Your task to perform on an android device: snooze an email in the gmail app Image 0: 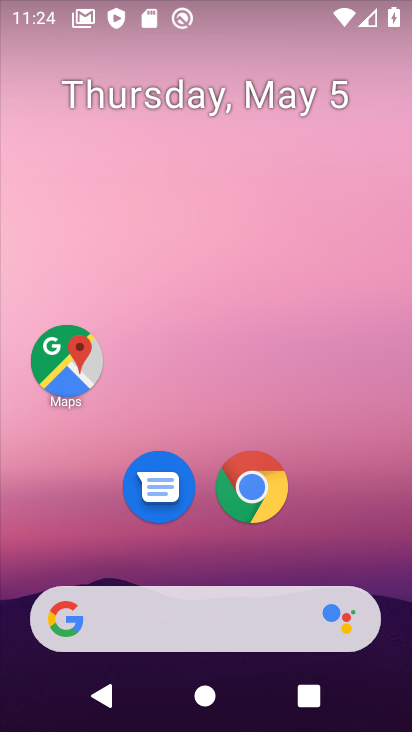
Step 0: drag from (332, 544) to (336, 109)
Your task to perform on an android device: snooze an email in the gmail app Image 1: 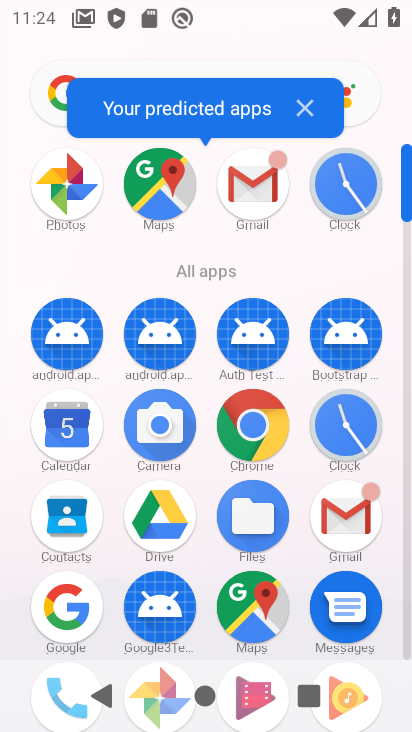
Step 1: click (335, 501)
Your task to perform on an android device: snooze an email in the gmail app Image 2: 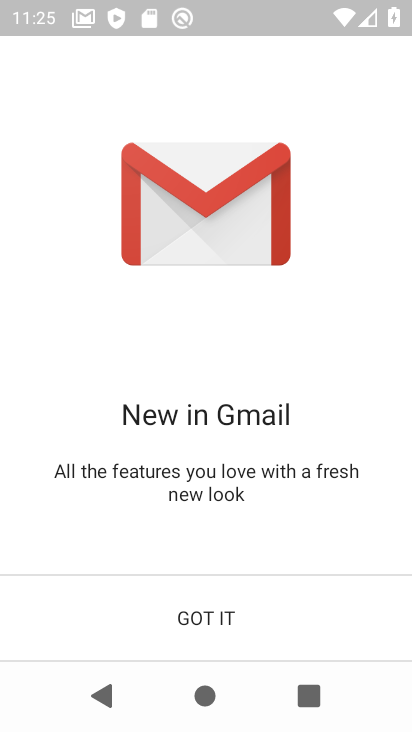
Step 2: click (260, 614)
Your task to perform on an android device: snooze an email in the gmail app Image 3: 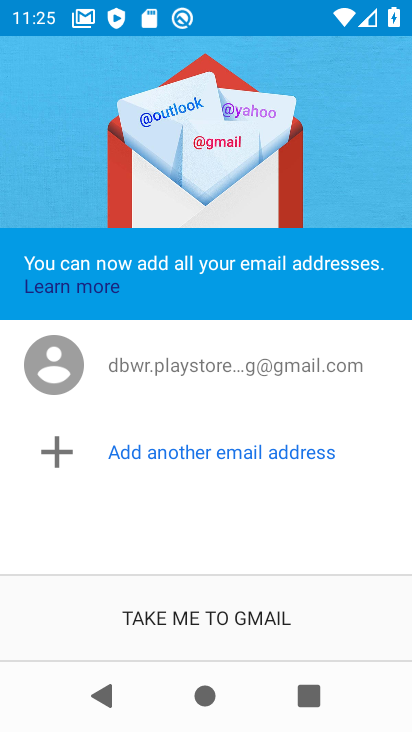
Step 3: click (260, 614)
Your task to perform on an android device: snooze an email in the gmail app Image 4: 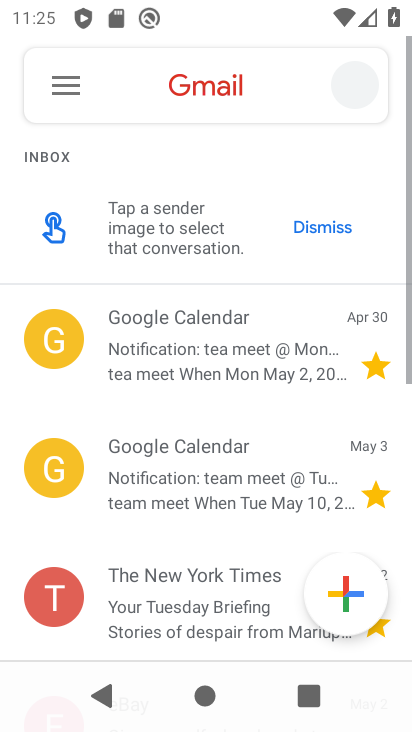
Step 4: click (62, 72)
Your task to perform on an android device: snooze an email in the gmail app Image 5: 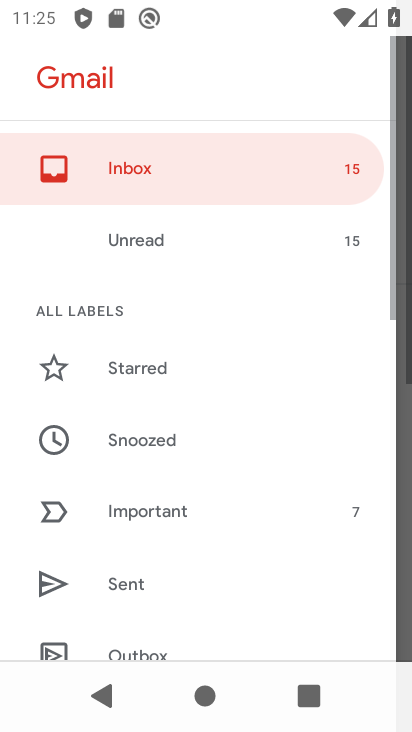
Step 5: drag from (105, 566) to (122, 503)
Your task to perform on an android device: snooze an email in the gmail app Image 6: 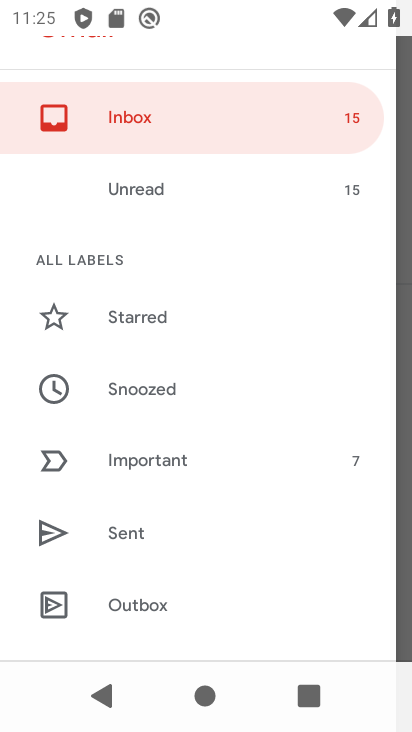
Step 6: click (176, 139)
Your task to perform on an android device: snooze an email in the gmail app Image 7: 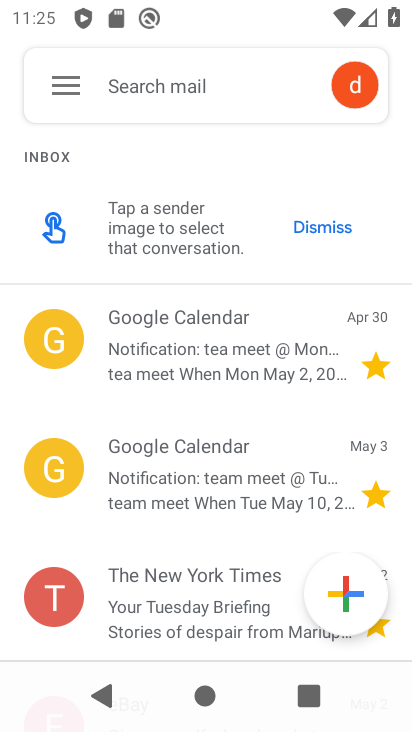
Step 7: click (181, 337)
Your task to perform on an android device: snooze an email in the gmail app Image 8: 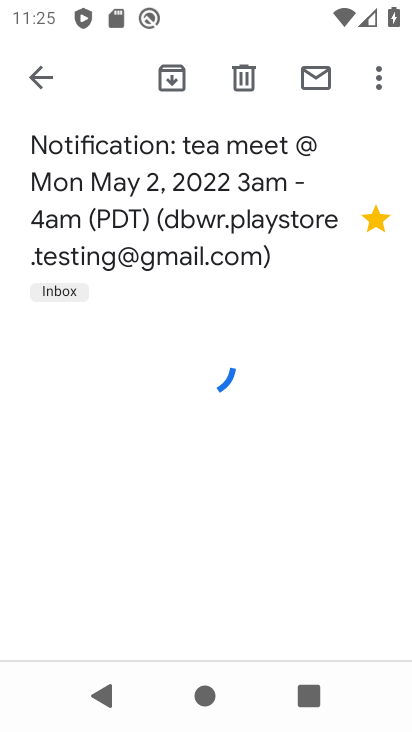
Step 8: click (381, 77)
Your task to perform on an android device: snooze an email in the gmail app Image 9: 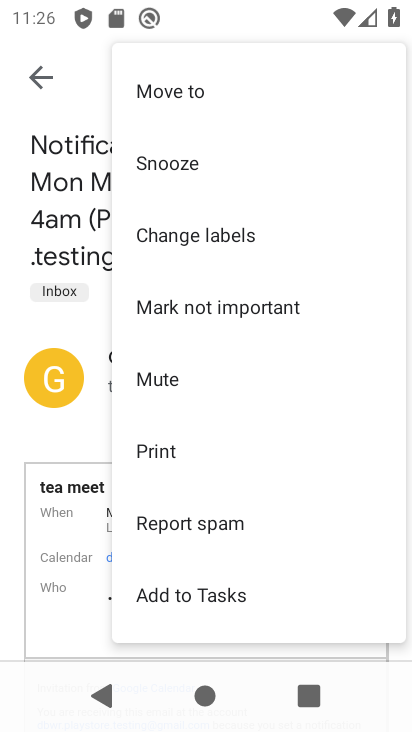
Step 9: click (250, 183)
Your task to perform on an android device: snooze an email in the gmail app Image 10: 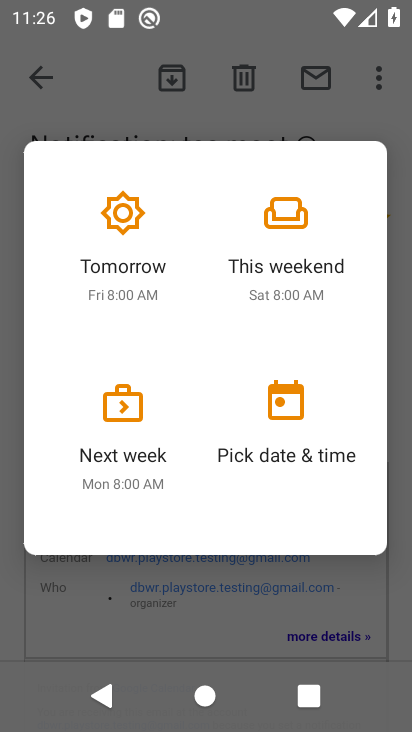
Step 10: click (99, 251)
Your task to perform on an android device: snooze an email in the gmail app Image 11: 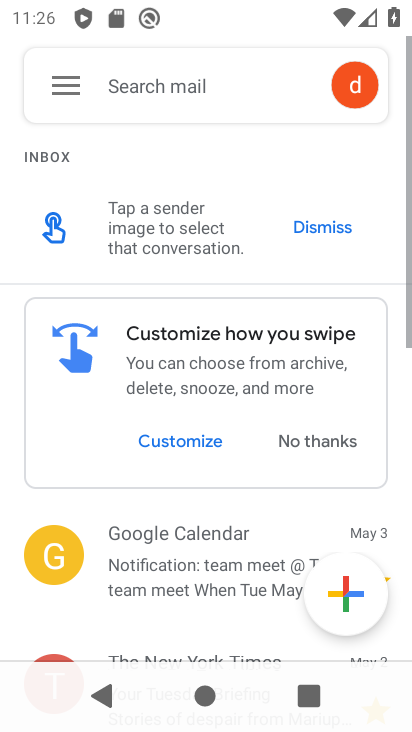
Step 11: task complete